Your task to perform on an android device: Open Youtube and go to "Your channel" Image 0: 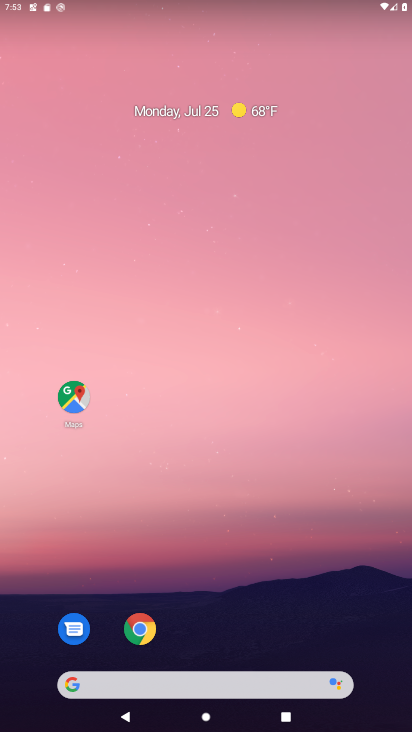
Step 0: drag from (306, 611) to (236, 21)
Your task to perform on an android device: Open Youtube and go to "Your channel" Image 1: 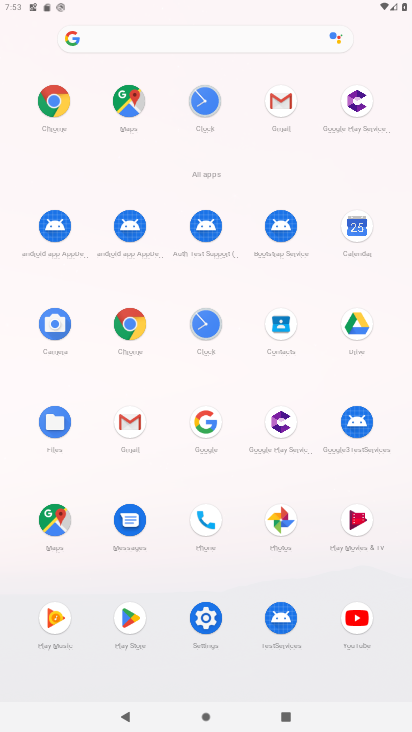
Step 1: click (358, 610)
Your task to perform on an android device: Open Youtube and go to "Your channel" Image 2: 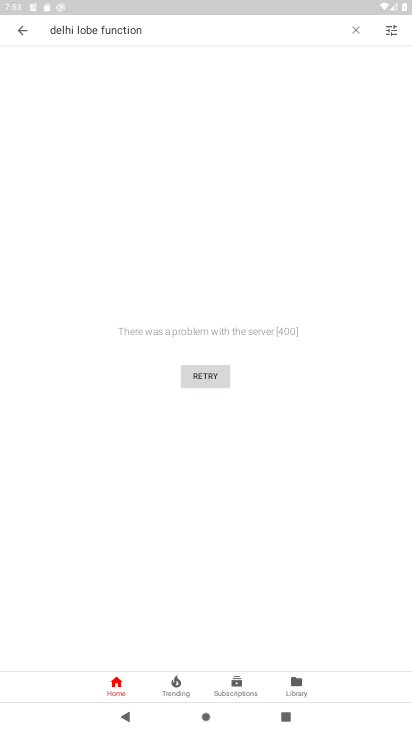
Step 2: task complete